Your task to perform on an android device: What's the weather going to be this weekend? Image 0: 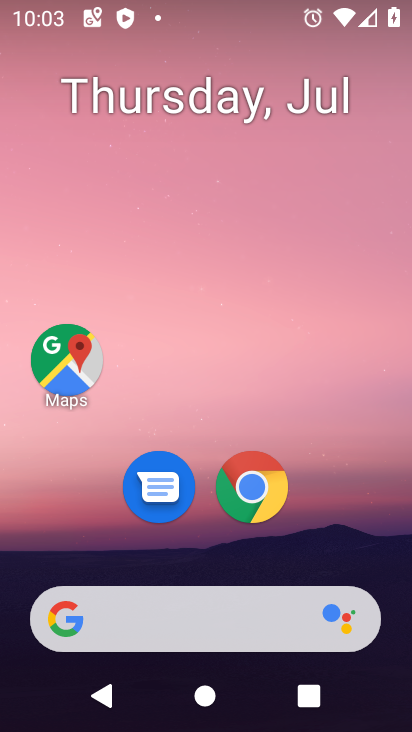
Step 0: drag from (165, 654) to (283, 245)
Your task to perform on an android device: What's the weather going to be this weekend? Image 1: 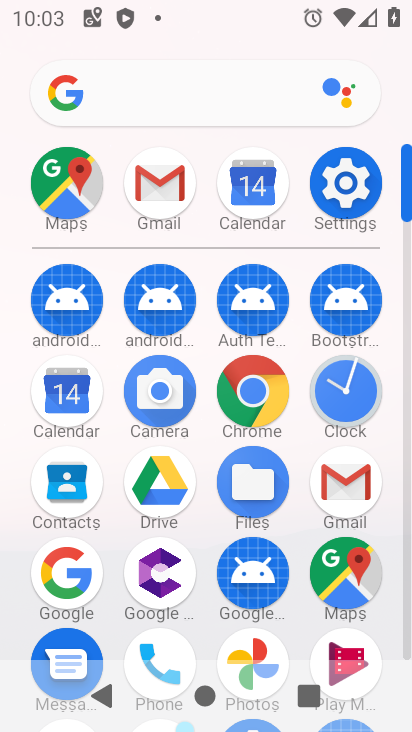
Step 1: click (68, 595)
Your task to perform on an android device: What's the weather going to be this weekend? Image 2: 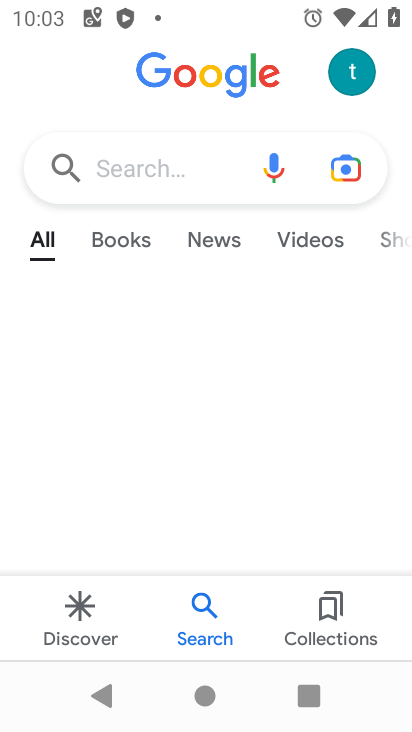
Step 2: click (151, 171)
Your task to perform on an android device: What's the weather going to be this weekend? Image 3: 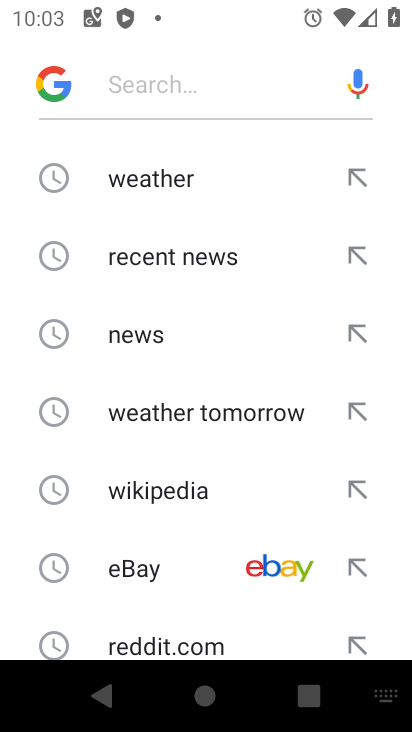
Step 3: click (176, 185)
Your task to perform on an android device: What's the weather going to be this weekend? Image 4: 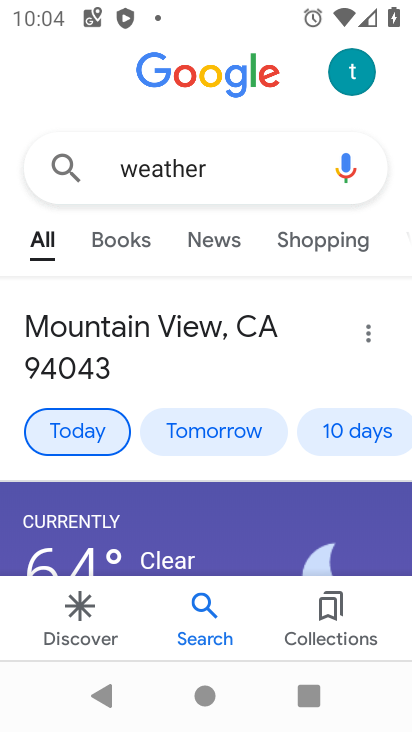
Step 4: click (362, 444)
Your task to perform on an android device: What's the weather going to be this weekend? Image 5: 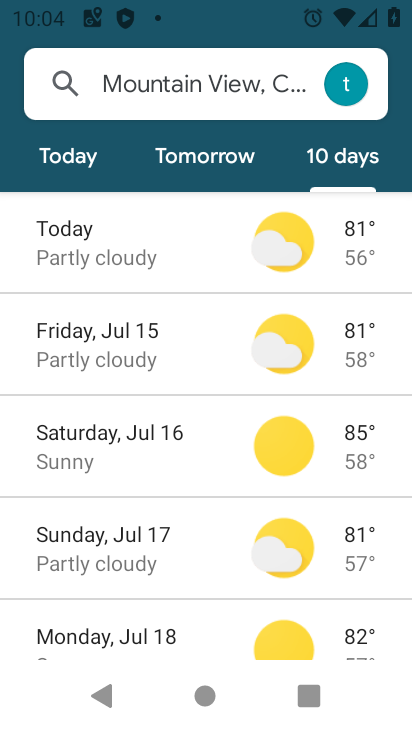
Step 5: task complete